Your task to perform on an android device: Go to Yahoo.com Image 0: 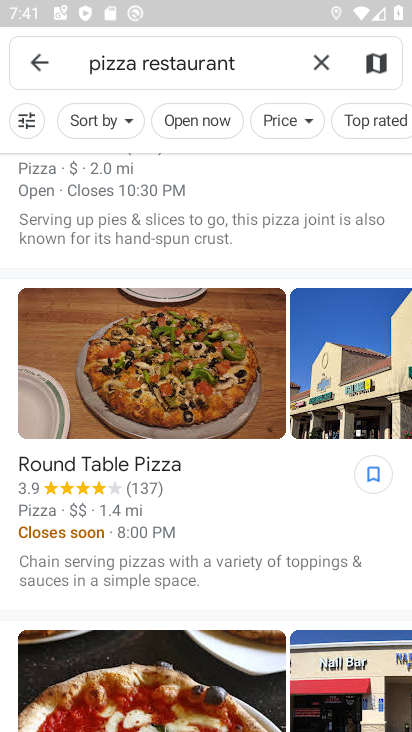
Step 0: press home button
Your task to perform on an android device: Go to Yahoo.com Image 1: 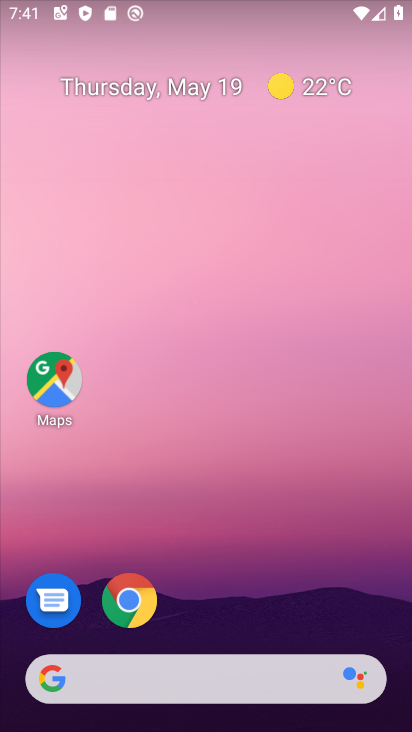
Step 1: drag from (289, 559) to (289, 257)
Your task to perform on an android device: Go to Yahoo.com Image 2: 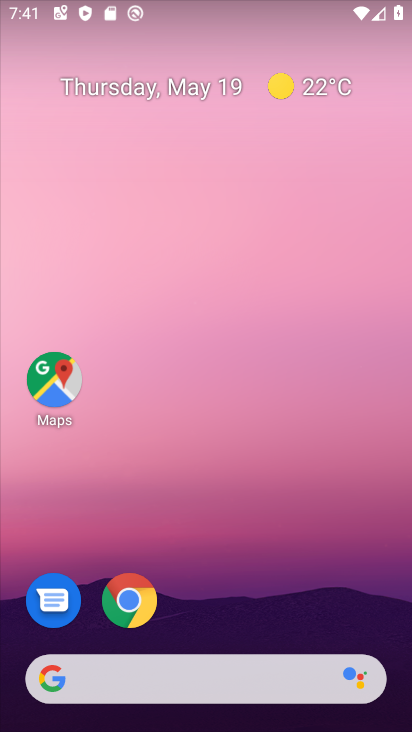
Step 2: drag from (284, 582) to (271, 209)
Your task to perform on an android device: Go to Yahoo.com Image 3: 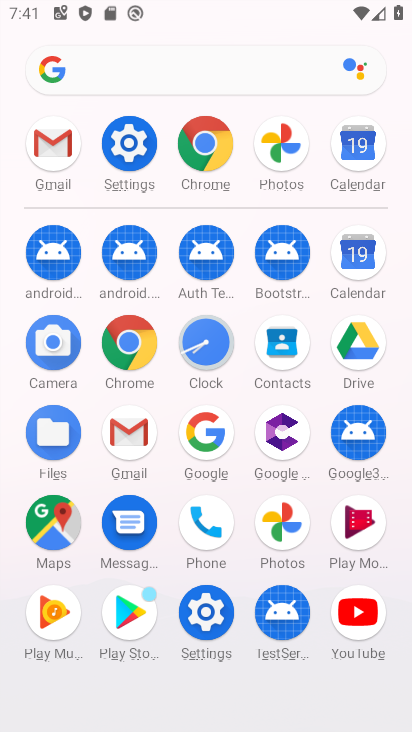
Step 3: click (129, 353)
Your task to perform on an android device: Go to Yahoo.com Image 4: 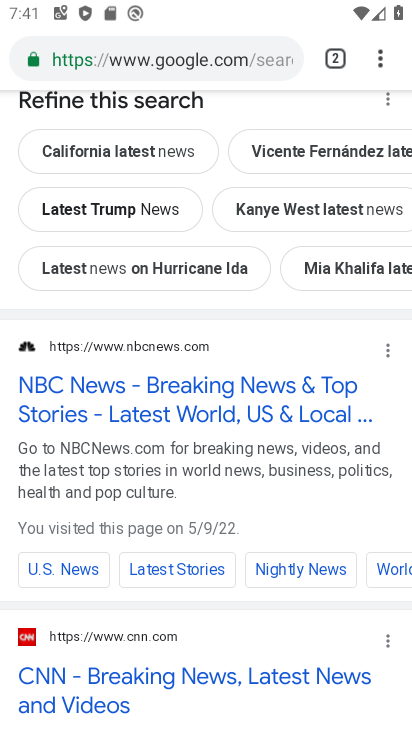
Step 4: click (168, 63)
Your task to perform on an android device: Go to Yahoo.com Image 5: 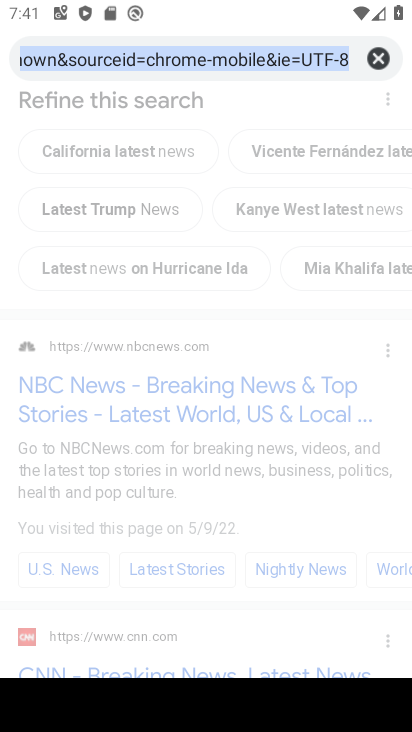
Step 5: click (383, 60)
Your task to perform on an android device: Go to Yahoo.com Image 6: 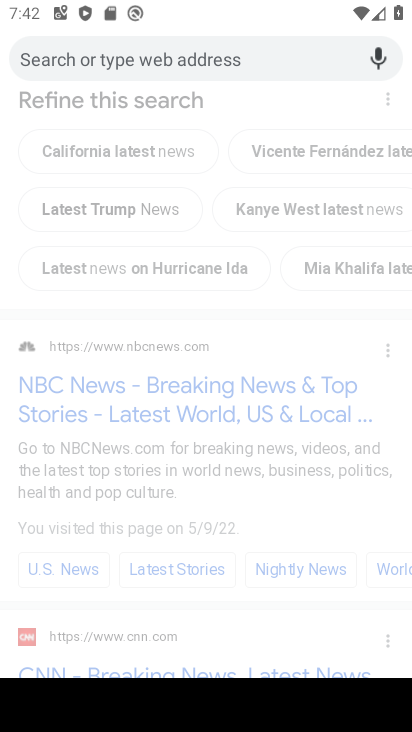
Step 6: type "yahoo.com"
Your task to perform on an android device: Go to Yahoo.com Image 7: 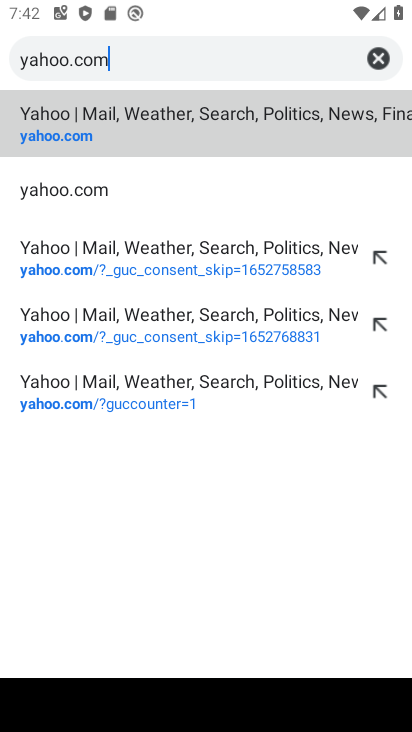
Step 7: click (200, 149)
Your task to perform on an android device: Go to Yahoo.com Image 8: 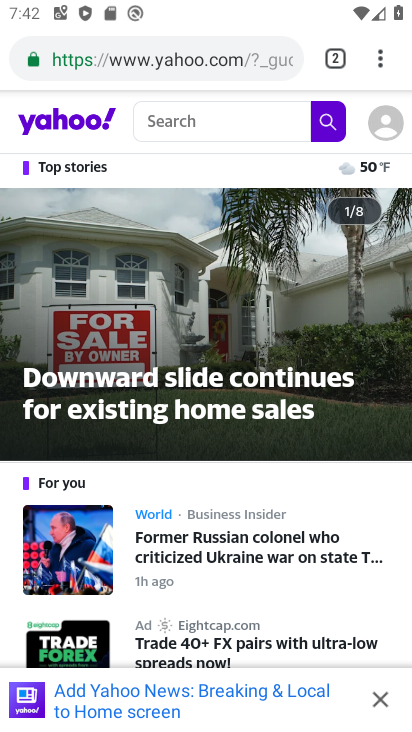
Step 8: task complete